Your task to perform on an android device: check storage Image 0: 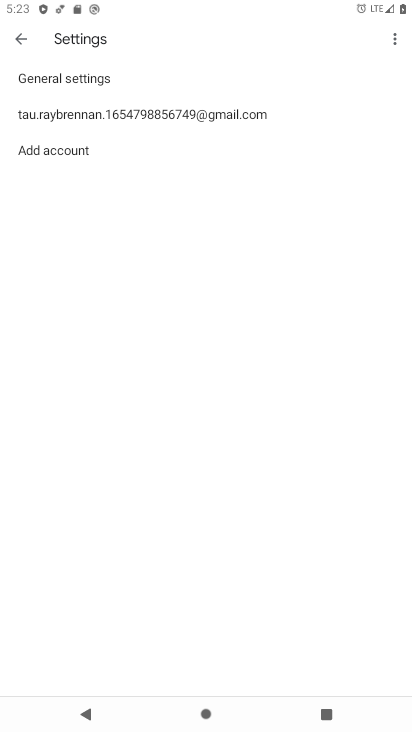
Step 0: press home button
Your task to perform on an android device: check storage Image 1: 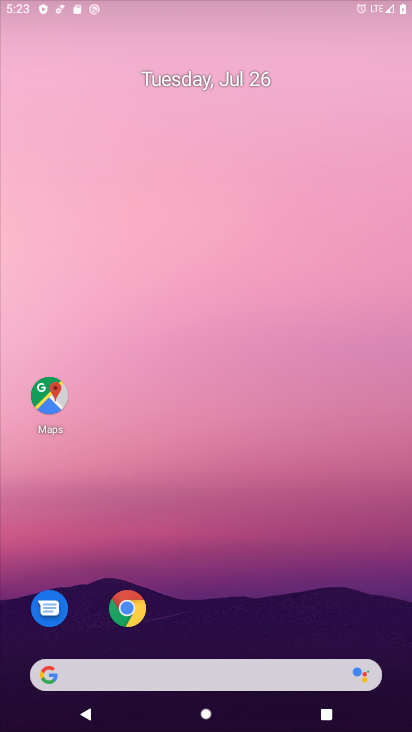
Step 1: drag from (354, 590) to (258, 71)
Your task to perform on an android device: check storage Image 2: 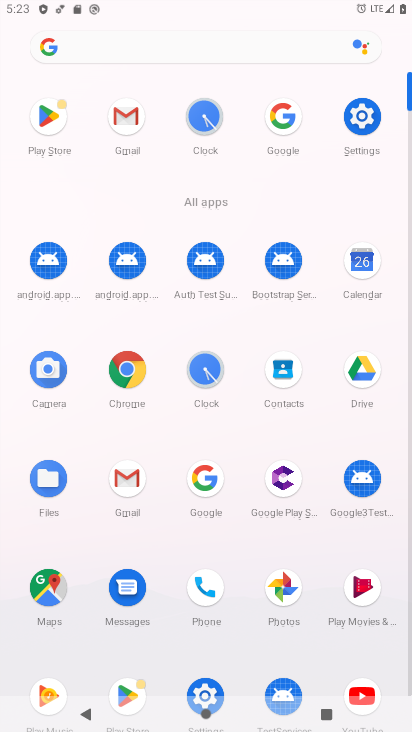
Step 2: click (356, 124)
Your task to perform on an android device: check storage Image 3: 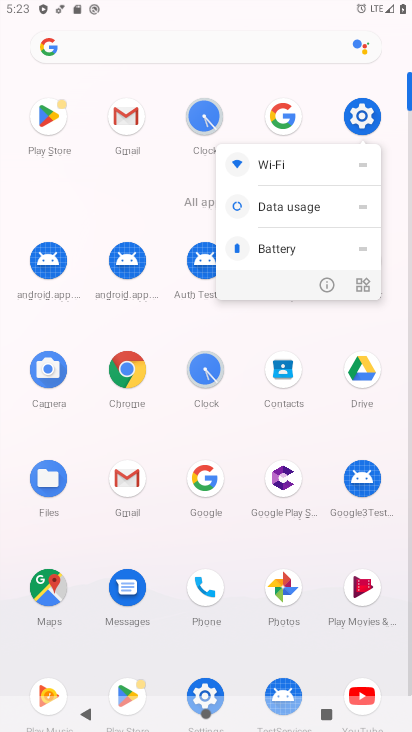
Step 3: click (362, 122)
Your task to perform on an android device: check storage Image 4: 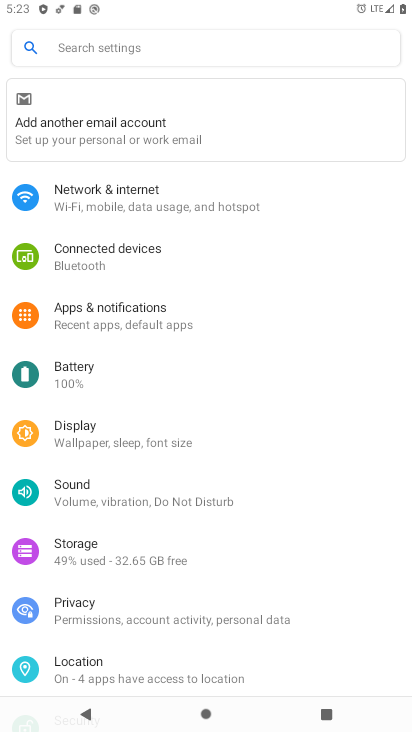
Step 4: click (85, 565)
Your task to perform on an android device: check storage Image 5: 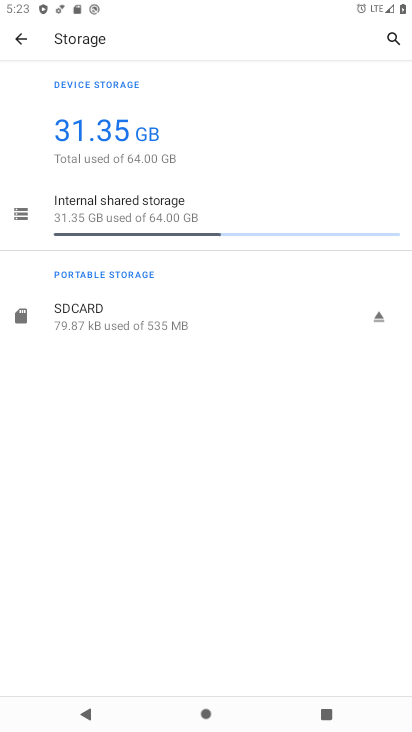
Step 5: click (134, 214)
Your task to perform on an android device: check storage Image 6: 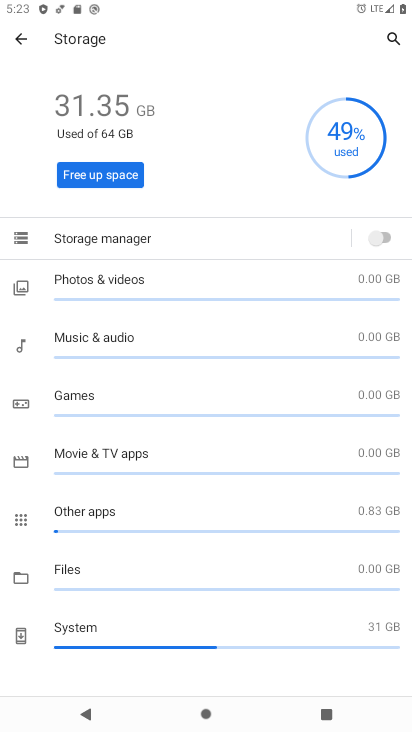
Step 6: task complete